Your task to perform on an android device: Open the stopwatch Image 0: 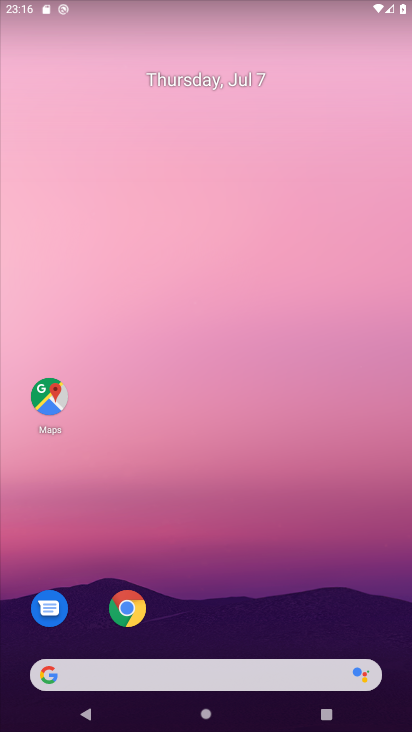
Step 0: drag from (238, 625) to (226, 165)
Your task to perform on an android device: Open the stopwatch Image 1: 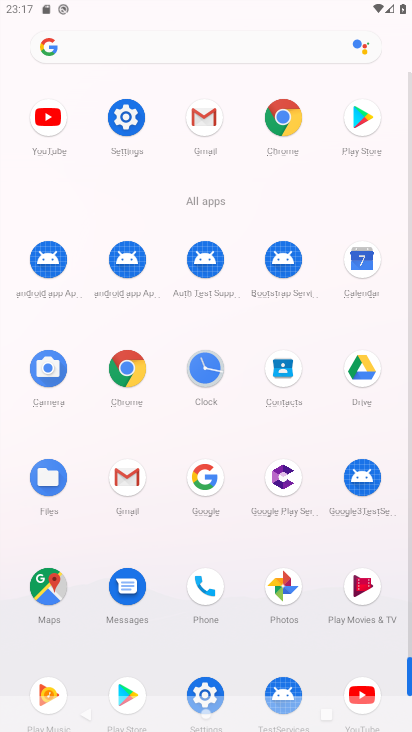
Step 1: click (201, 353)
Your task to perform on an android device: Open the stopwatch Image 2: 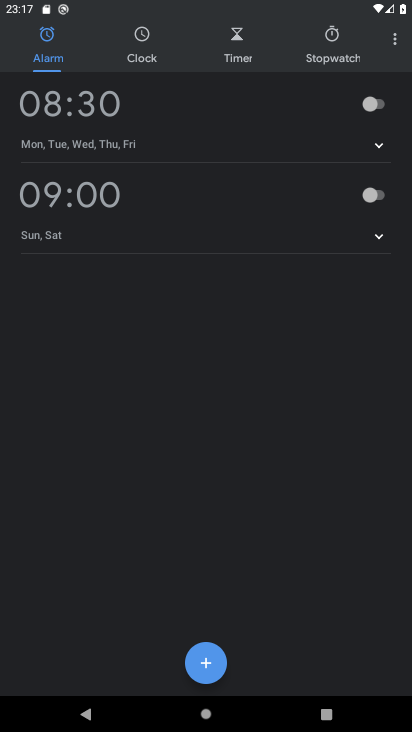
Step 2: click (324, 52)
Your task to perform on an android device: Open the stopwatch Image 3: 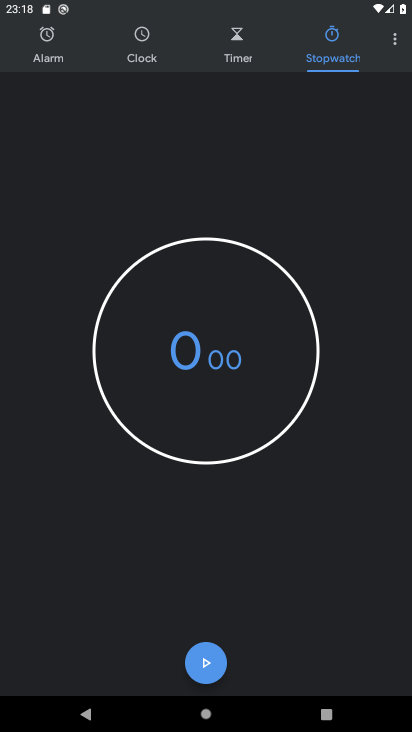
Step 3: task complete